Your task to perform on an android device: Open location settings Image 0: 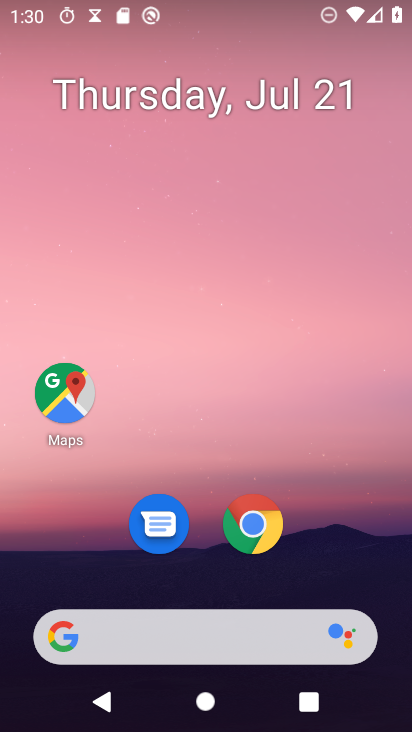
Step 0: press home button
Your task to perform on an android device: Open location settings Image 1: 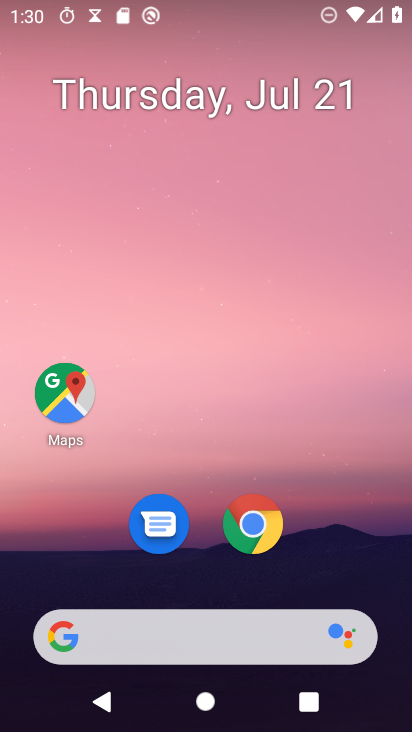
Step 1: drag from (237, 641) to (318, 38)
Your task to perform on an android device: Open location settings Image 2: 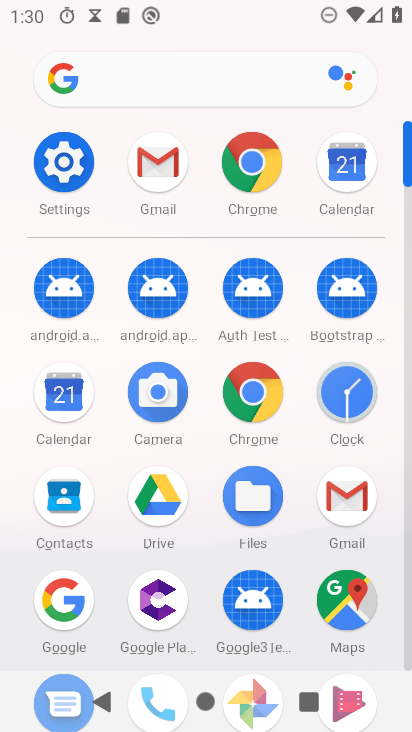
Step 2: click (67, 164)
Your task to perform on an android device: Open location settings Image 3: 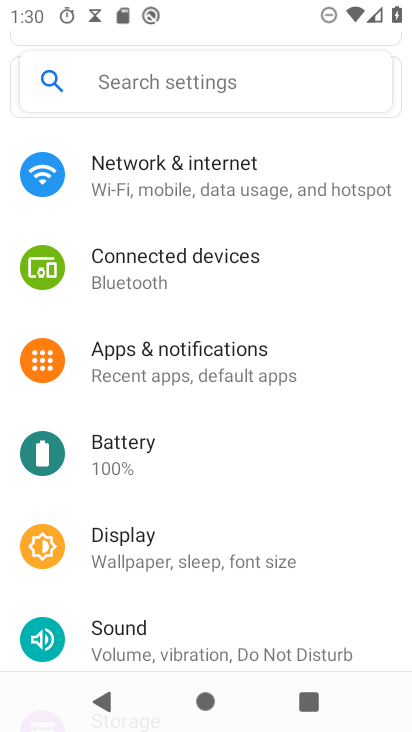
Step 3: drag from (272, 558) to (304, 165)
Your task to perform on an android device: Open location settings Image 4: 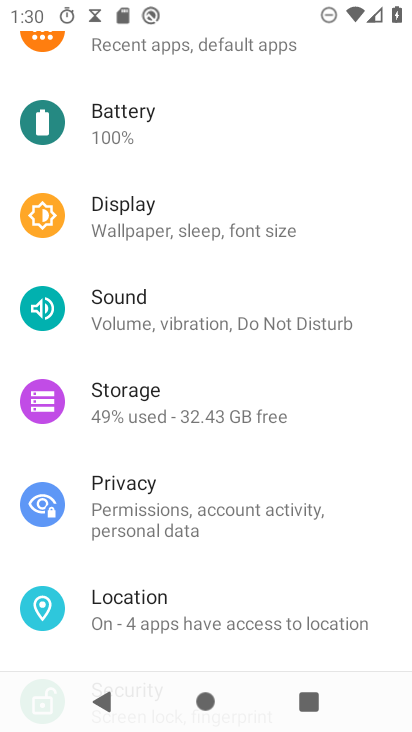
Step 4: click (145, 603)
Your task to perform on an android device: Open location settings Image 5: 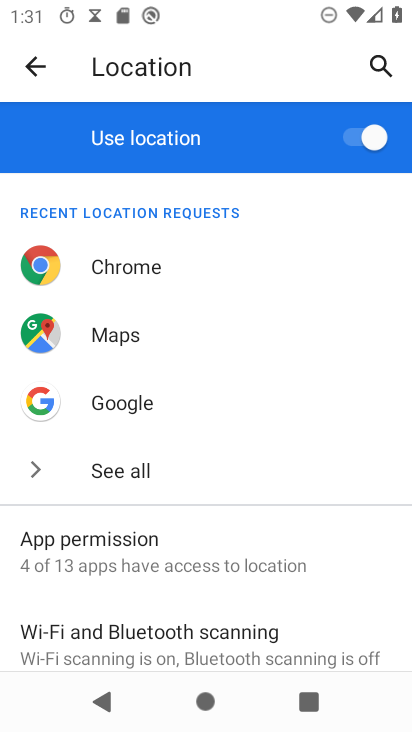
Step 5: task complete